Your task to perform on an android device: empty trash in the gmail app Image 0: 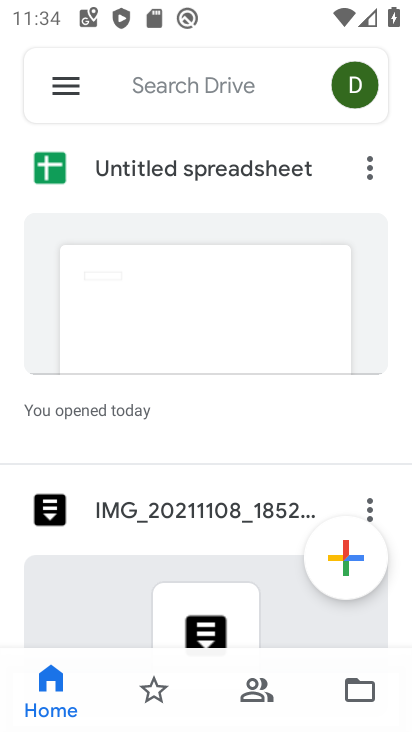
Step 0: press home button
Your task to perform on an android device: empty trash in the gmail app Image 1: 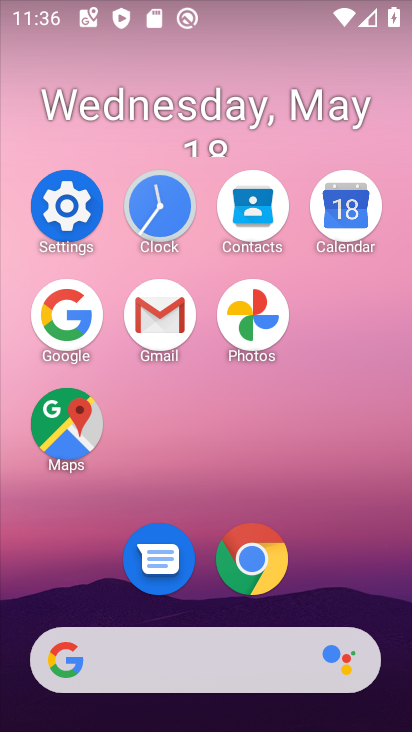
Step 1: click (163, 306)
Your task to perform on an android device: empty trash in the gmail app Image 2: 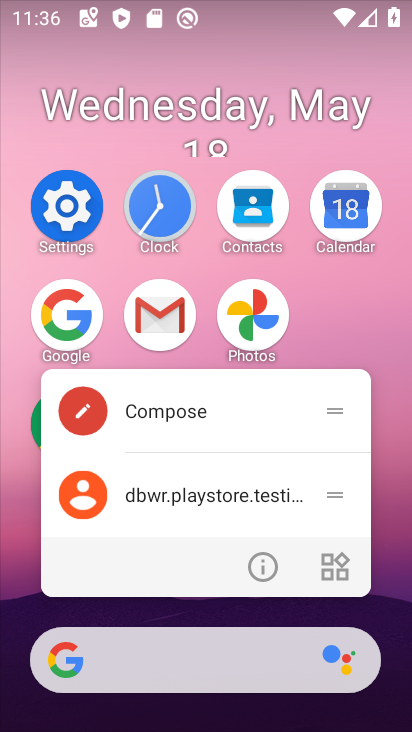
Step 2: click (163, 305)
Your task to perform on an android device: empty trash in the gmail app Image 3: 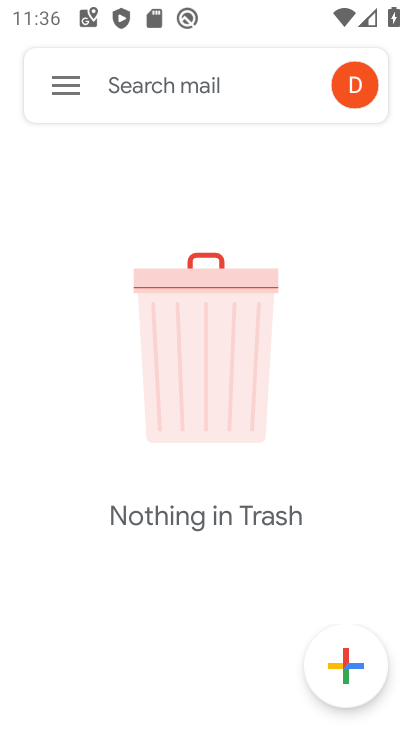
Step 3: click (56, 95)
Your task to perform on an android device: empty trash in the gmail app Image 4: 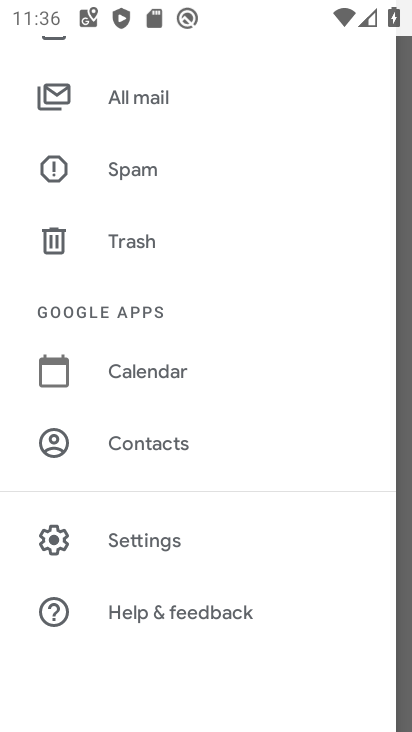
Step 4: click (179, 239)
Your task to perform on an android device: empty trash in the gmail app Image 5: 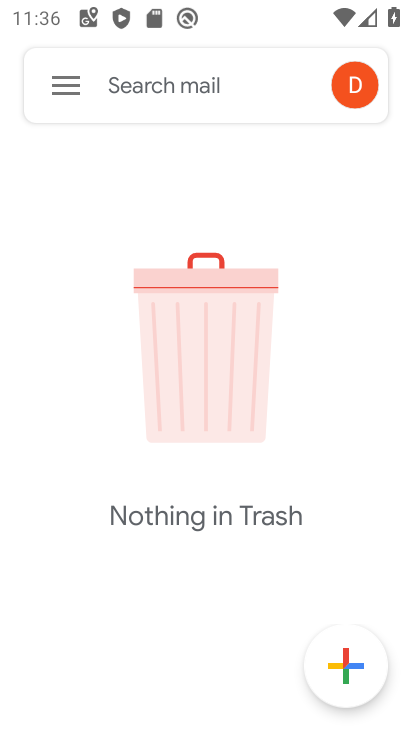
Step 5: task complete